Your task to perform on an android device: Open settings on Google Maps Image 0: 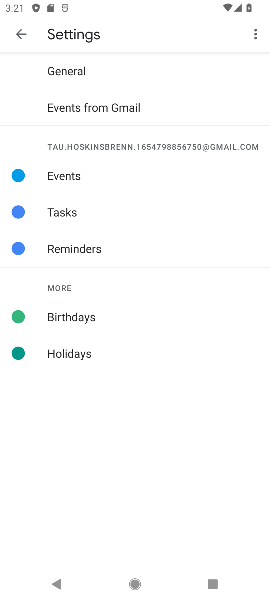
Step 0: press back button
Your task to perform on an android device: Open settings on Google Maps Image 1: 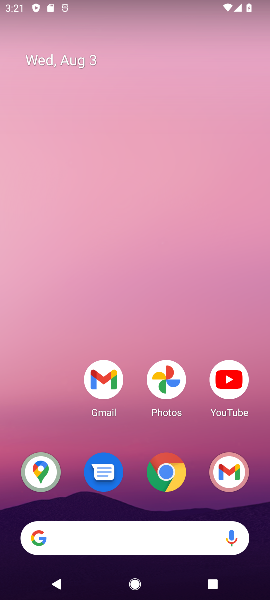
Step 1: drag from (36, 397) to (65, 175)
Your task to perform on an android device: Open settings on Google Maps Image 2: 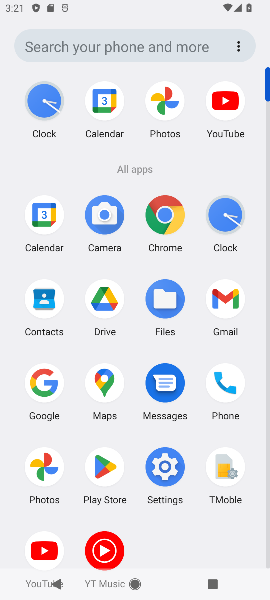
Step 2: click (94, 378)
Your task to perform on an android device: Open settings on Google Maps Image 3: 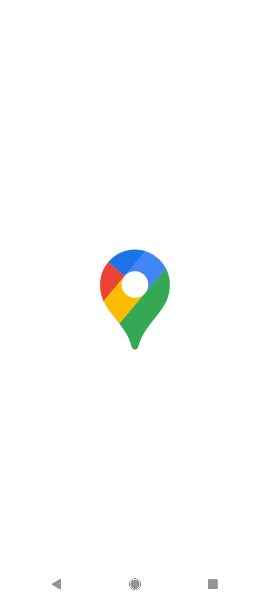
Step 3: press back button
Your task to perform on an android device: Open settings on Google Maps Image 4: 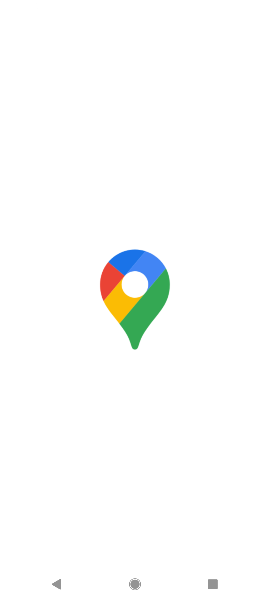
Step 4: press home button
Your task to perform on an android device: Open settings on Google Maps Image 5: 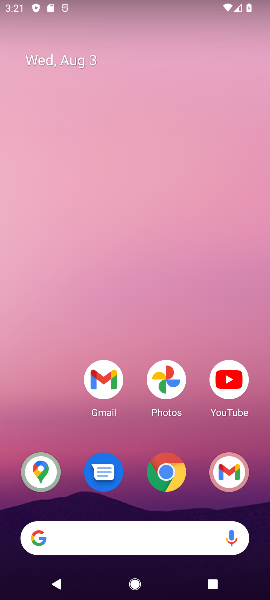
Step 5: drag from (57, 408) to (74, 109)
Your task to perform on an android device: Open settings on Google Maps Image 6: 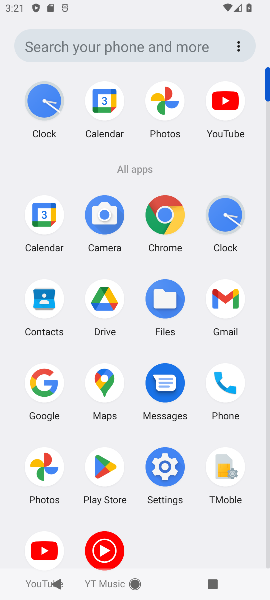
Step 6: click (107, 473)
Your task to perform on an android device: Open settings on Google Maps Image 7: 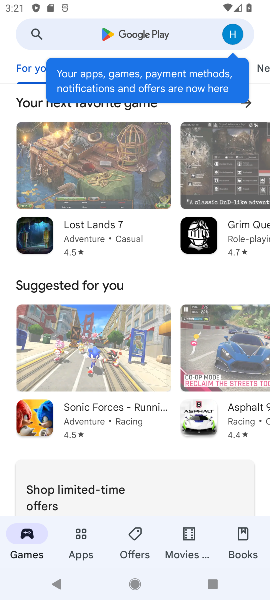
Step 7: click (155, 39)
Your task to perform on an android device: Open settings on Google Maps Image 8: 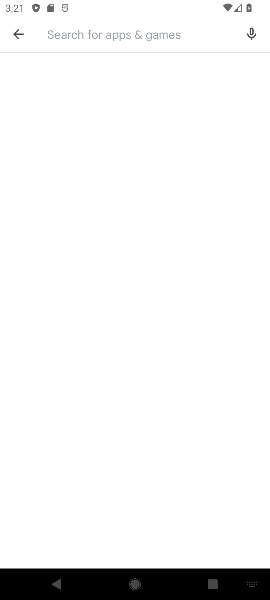
Step 8: type "google maps"
Your task to perform on an android device: Open settings on Google Maps Image 9: 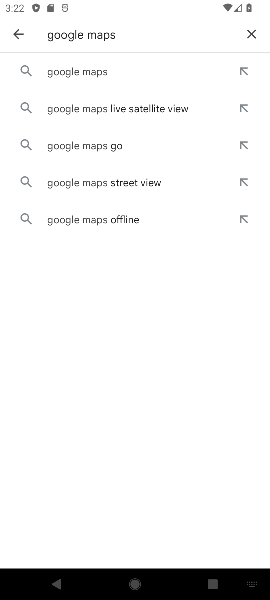
Step 9: click (77, 62)
Your task to perform on an android device: Open settings on Google Maps Image 10: 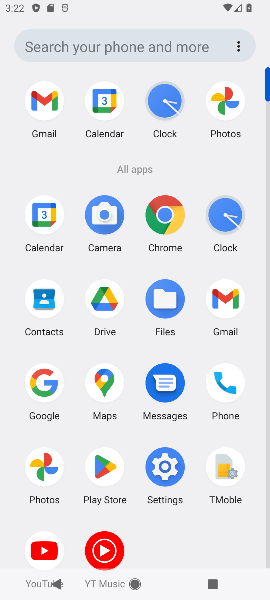
Step 10: click (108, 377)
Your task to perform on an android device: Open settings on Google Maps Image 11: 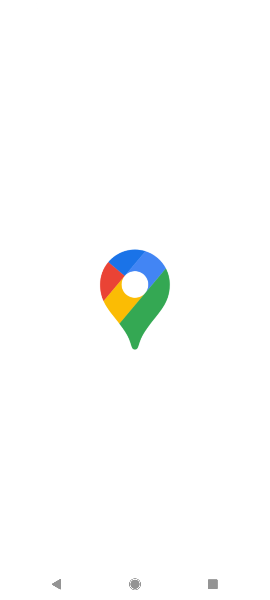
Step 11: task complete